Your task to perform on an android device: turn off wifi Image 0: 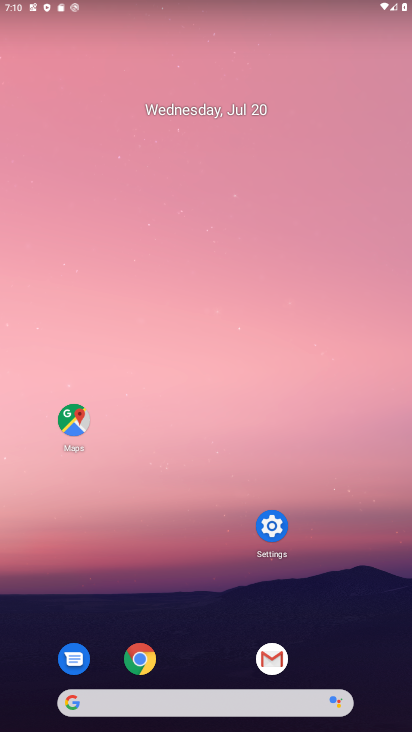
Step 0: click (253, 531)
Your task to perform on an android device: turn off wifi Image 1: 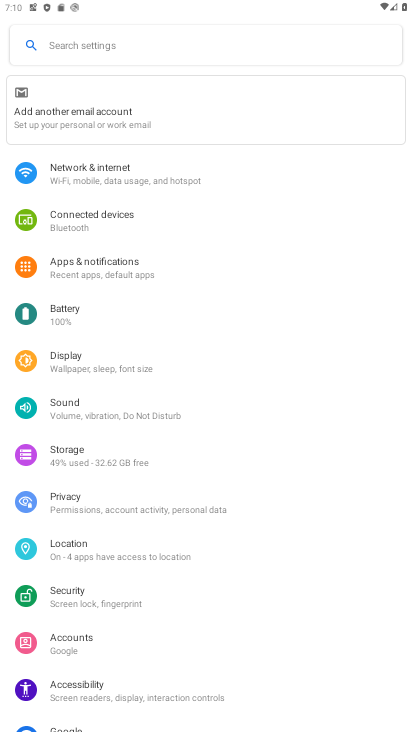
Step 1: click (111, 179)
Your task to perform on an android device: turn off wifi Image 2: 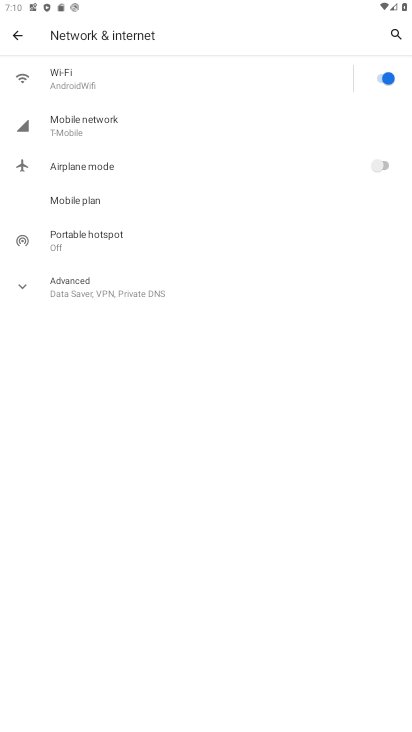
Step 2: click (115, 77)
Your task to perform on an android device: turn off wifi Image 3: 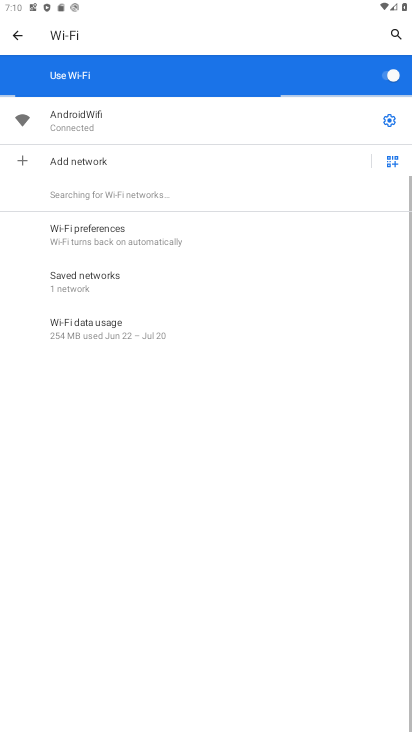
Step 3: click (380, 69)
Your task to perform on an android device: turn off wifi Image 4: 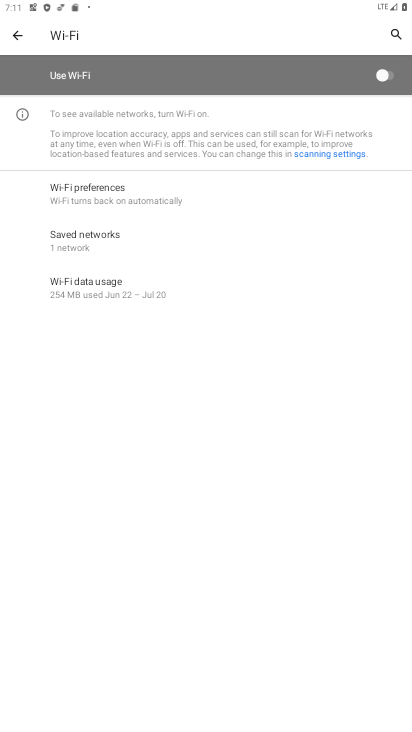
Step 4: task complete